Your task to perform on an android device: add a contact Image 0: 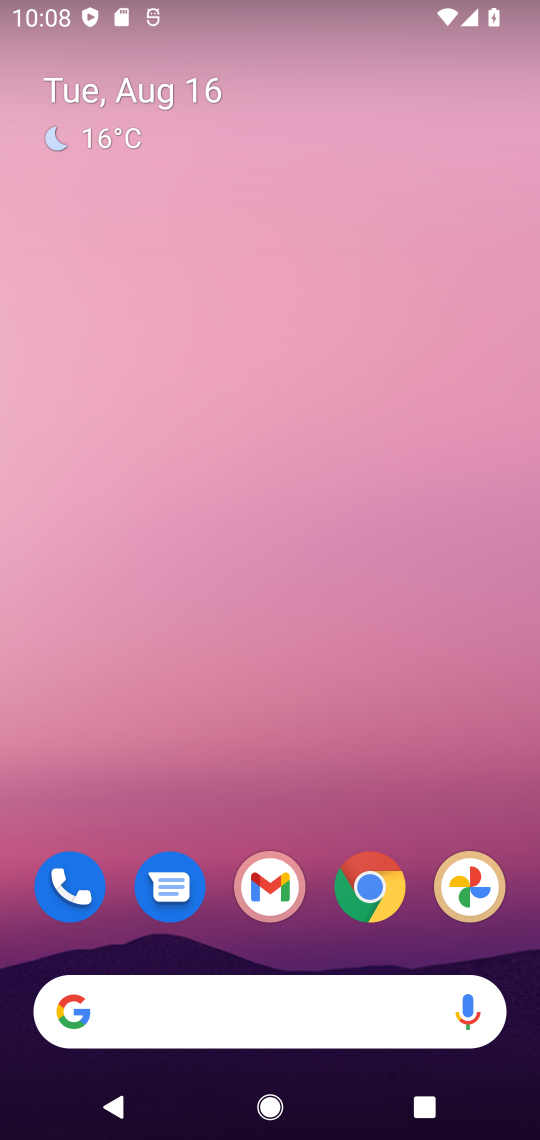
Step 0: press home button
Your task to perform on an android device: add a contact Image 1: 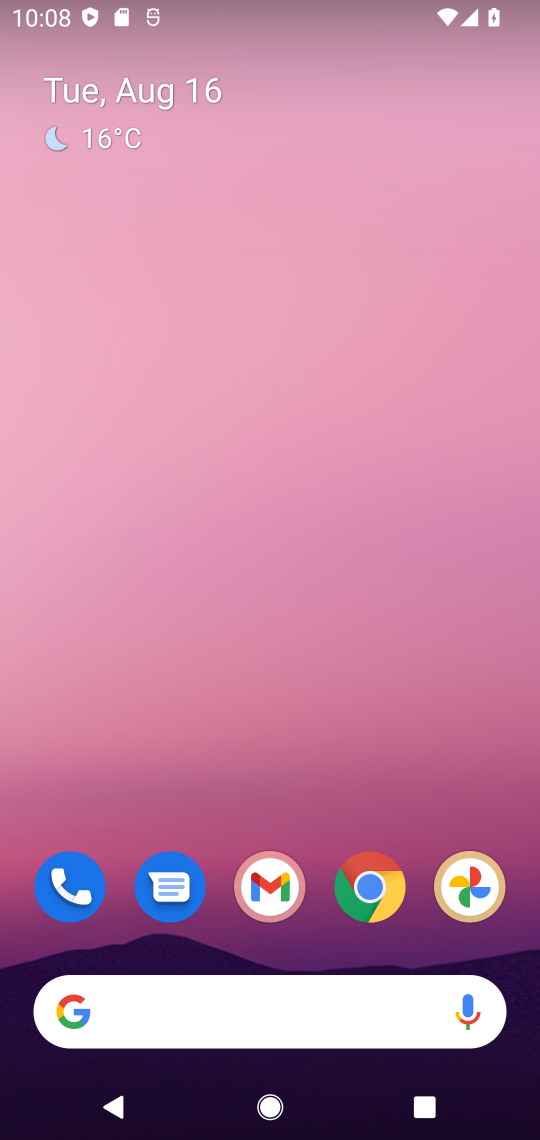
Step 1: drag from (418, 780) to (503, 256)
Your task to perform on an android device: add a contact Image 2: 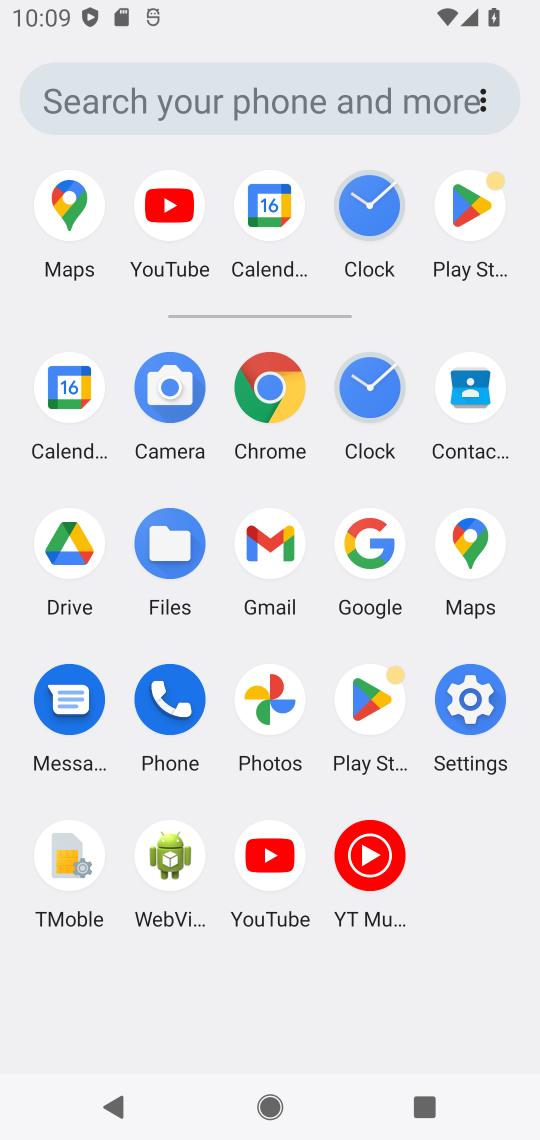
Step 2: click (455, 400)
Your task to perform on an android device: add a contact Image 3: 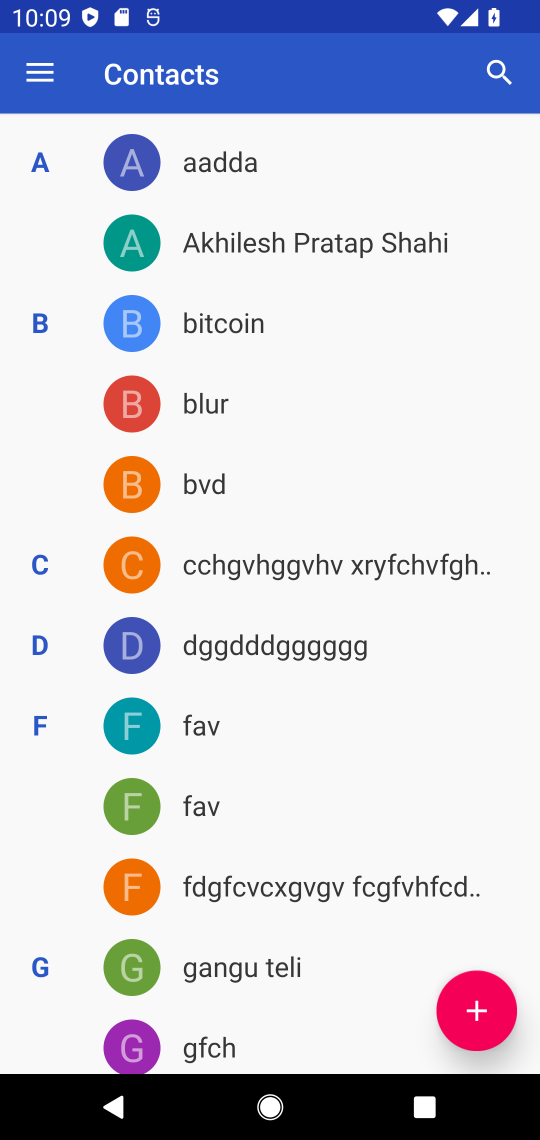
Step 3: click (480, 1008)
Your task to perform on an android device: add a contact Image 4: 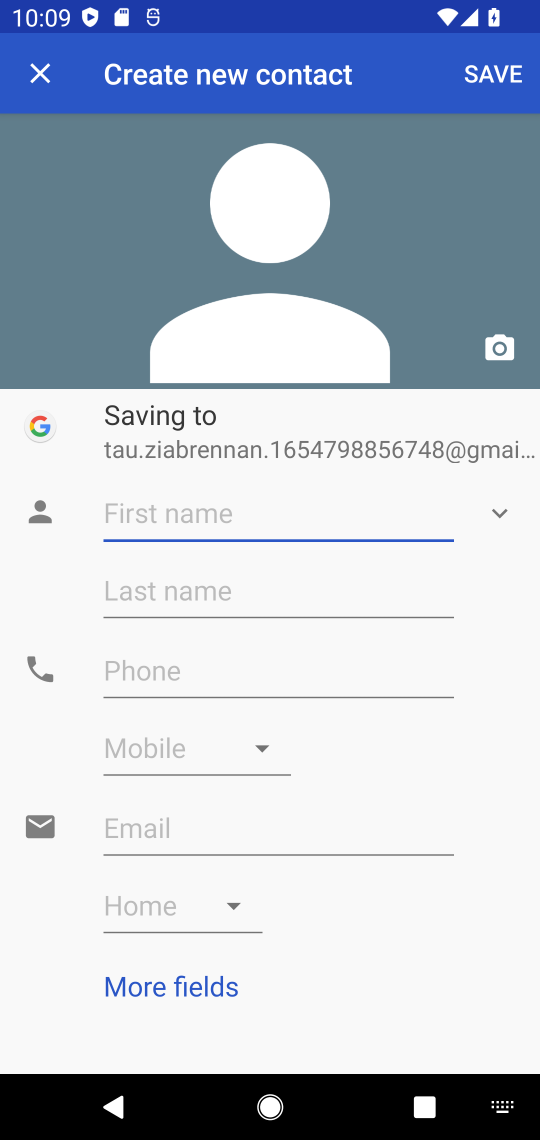
Step 4: type "fav"
Your task to perform on an android device: add a contact Image 5: 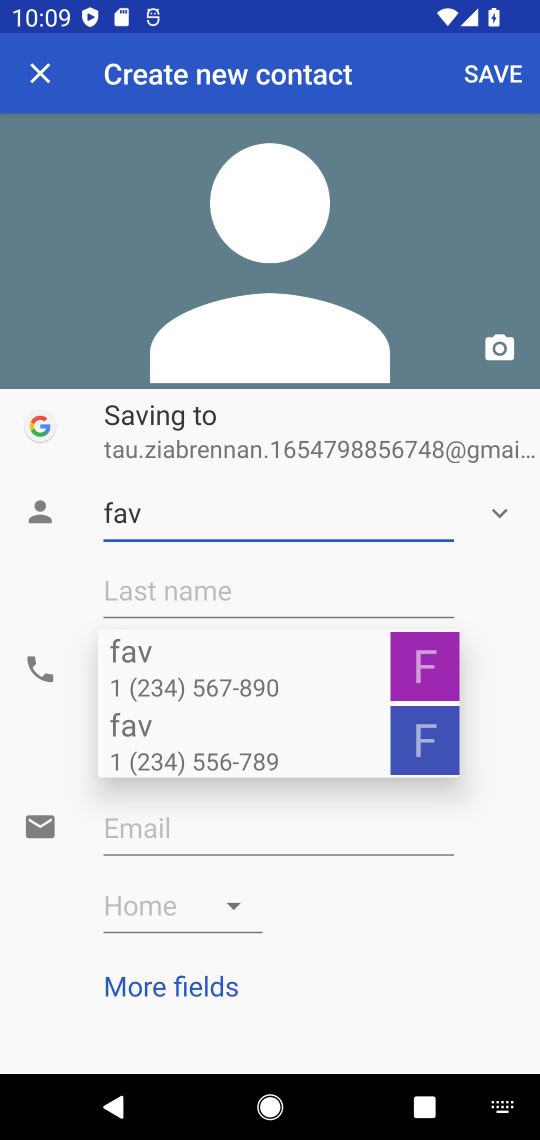
Step 5: click (507, 608)
Your task to perform on an android device: add a contact Image 6: 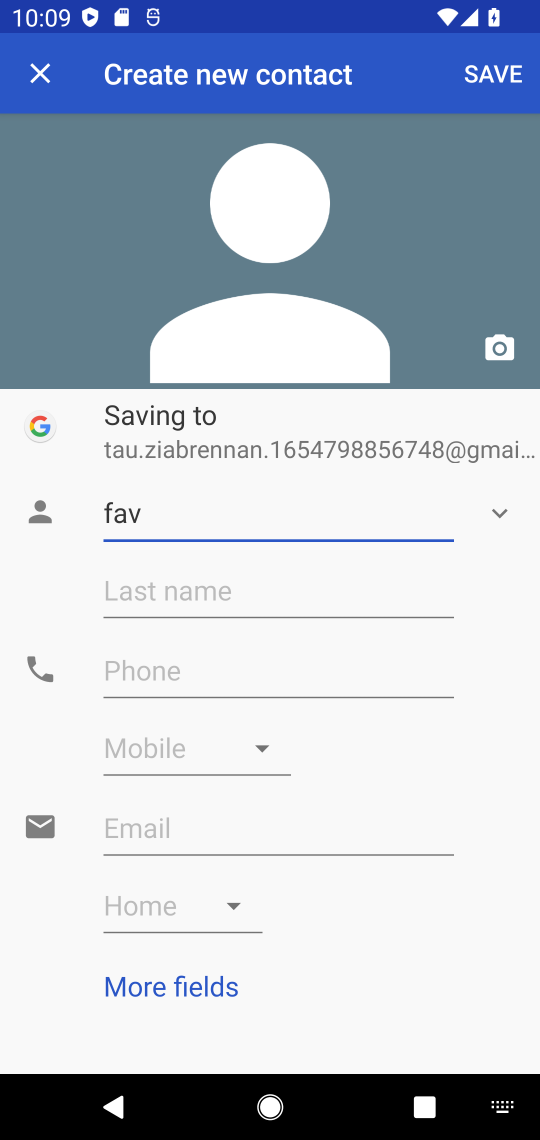
Step 6: click (383, 653)
Your task to perform on an android device: add a contact Image 7: 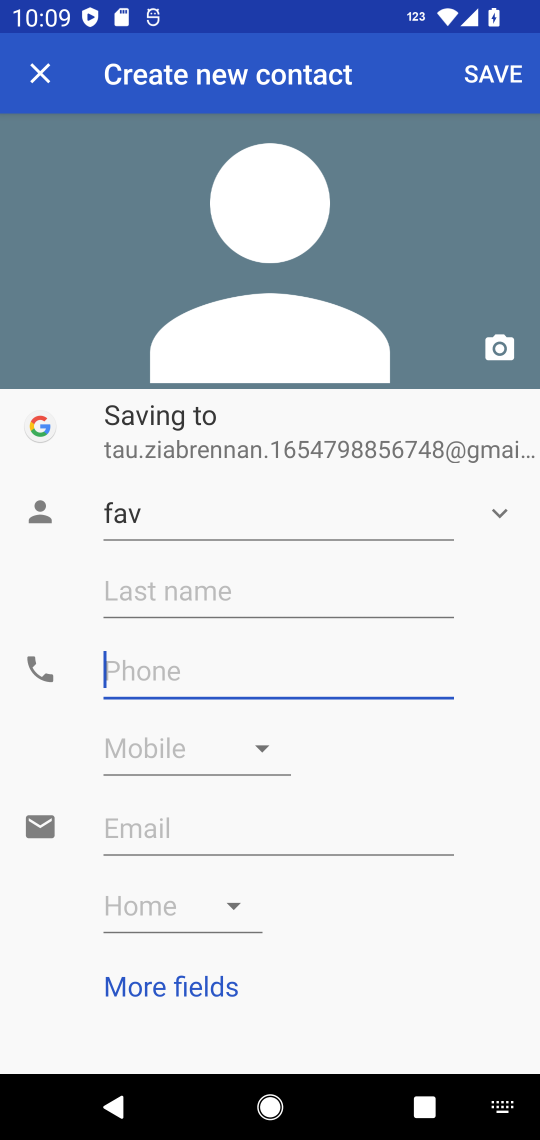
Step 7: type "12345677899"
Your task to perform on an android device: add a contact Image 8: 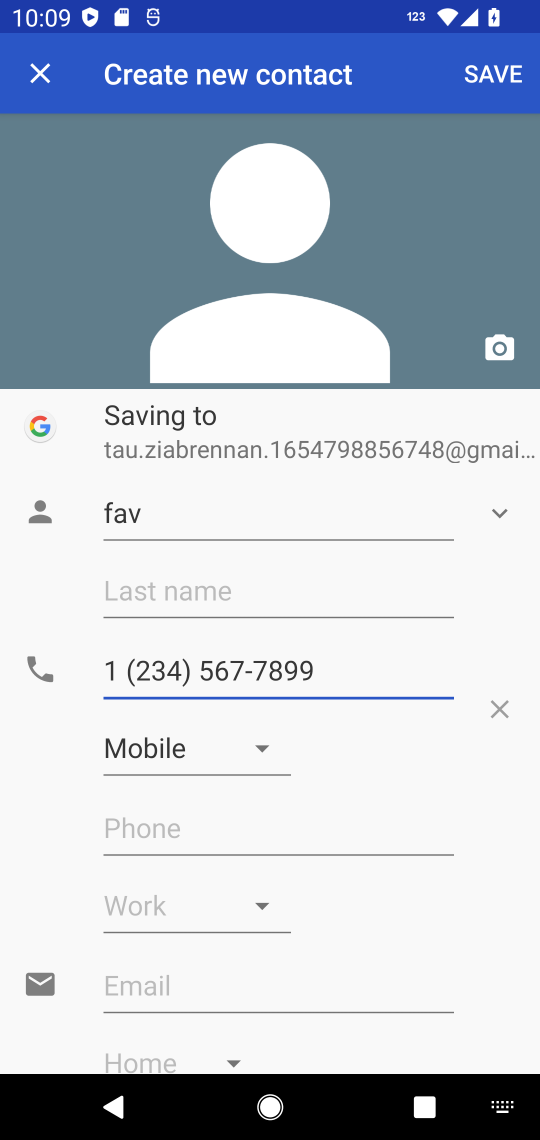
Step 8: click (489, 84)
Your task to perform on an android device: add a contact Image 9: 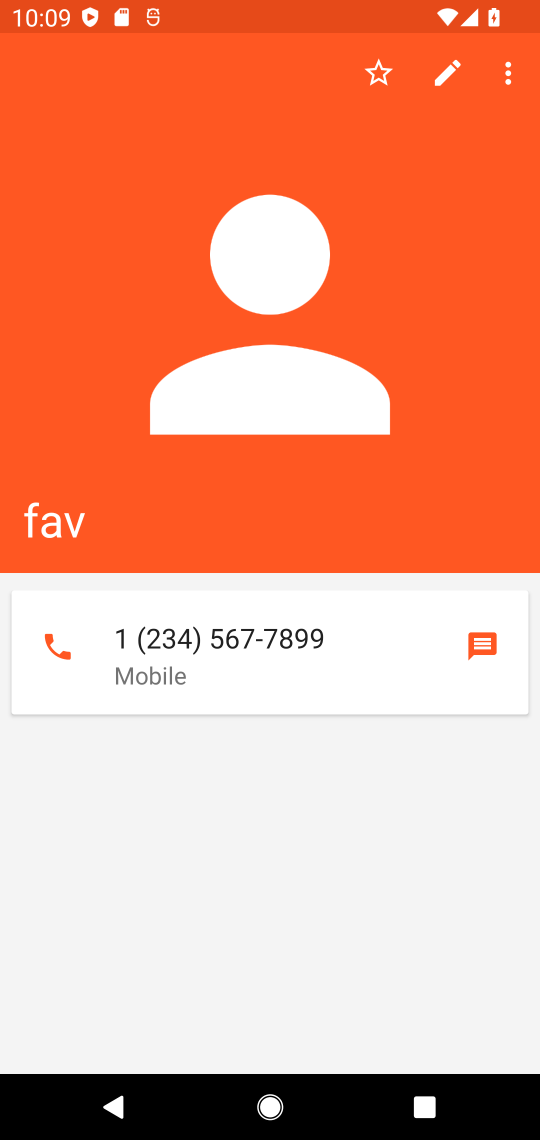
Step 9: task complete